Your task to perform on an android device: Go to CNN.com Image 0: 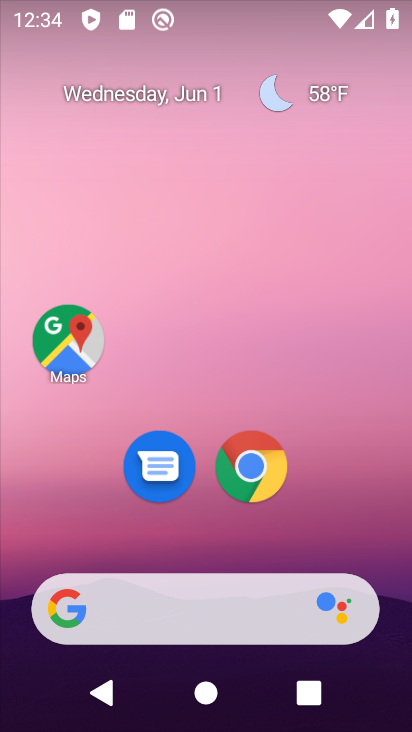
Step 0: click (250, 475)
Your task to perform on an android device: Go to CNN.com Image 1: 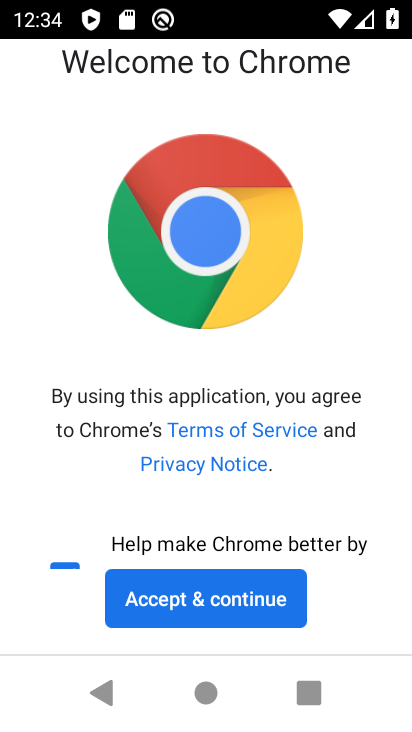
Step 1: click (251, 610)
Your task to perform on an android device: Go to CNN.com Image 2: 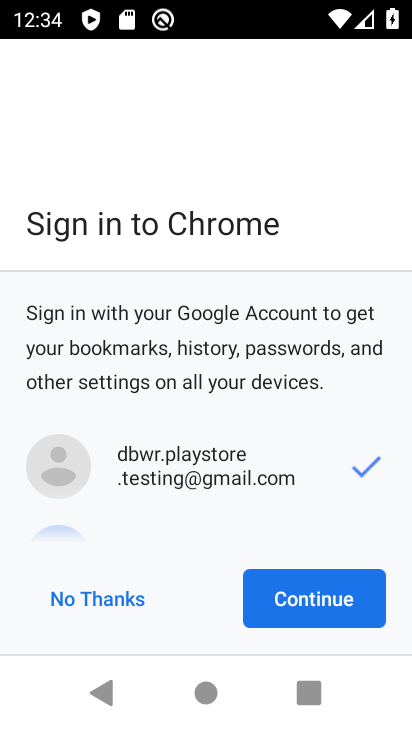
Step 2: click (297, 609)
Your task to perform on an android device: Go to CNN.com Image 3: 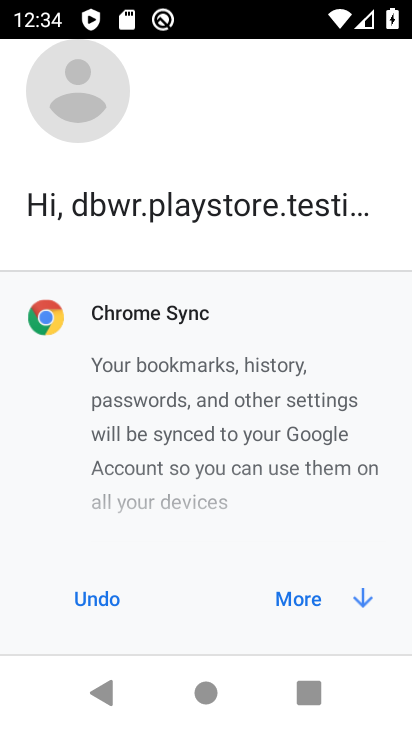
Step 3: click (299, 606)
Your task to perform on an android device: Go to CNN.com Image 4: 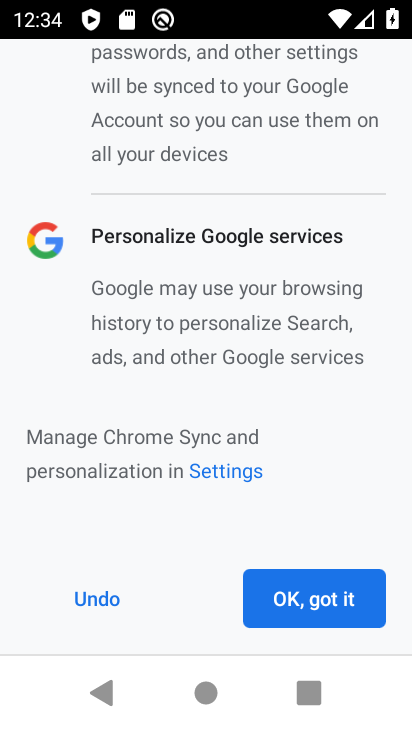
Step 4: click (299, 606)
Your task to perform on an android device: Go to CNN.com Image 5: 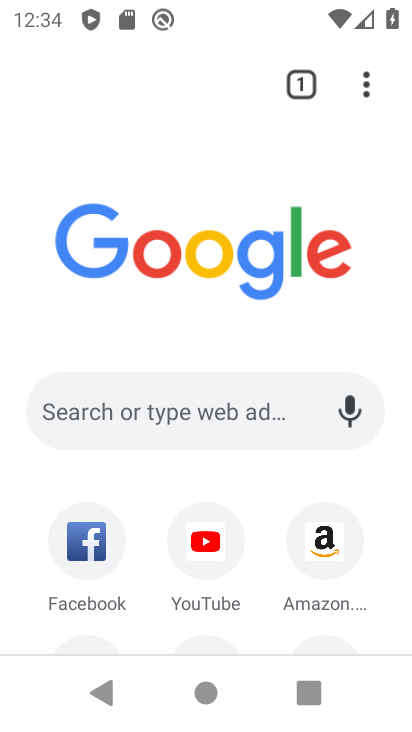
Step 5: drag from (150, 587) to (193, 160)
Your task to perform on an android device: Go to CNN.com Image 6: 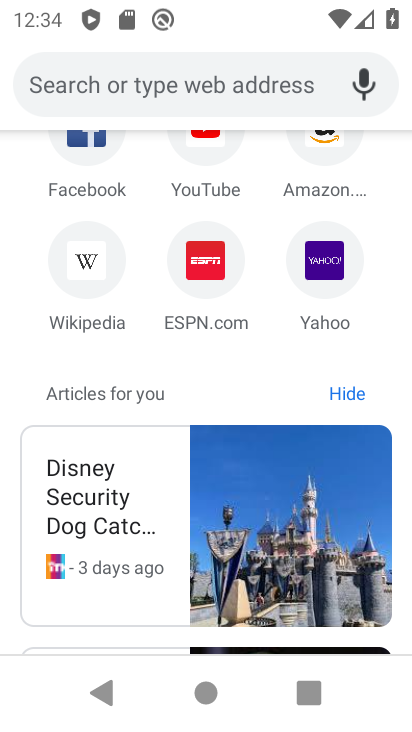
Step 6: click (241, 89)
Your task to perform on an android device: Go to CNN.com Image 7: 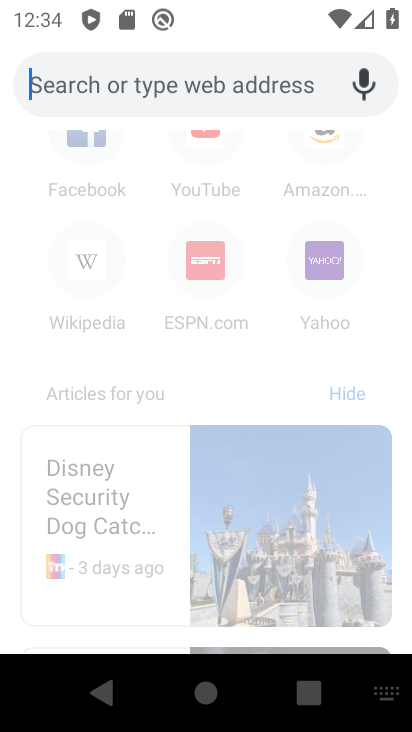
Step 7: type "CNN.com"
Your task to perform on an android device: Go to CNN.com Image 8: 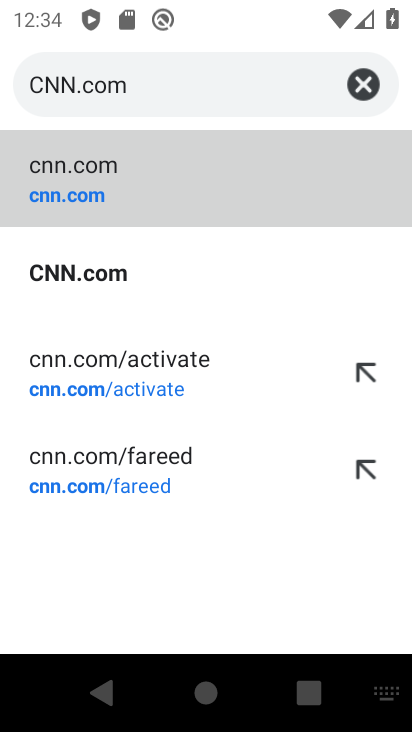
Step 8: click (179, 182)
Your task to perform on an android device: Go to CNN.com Image 9: 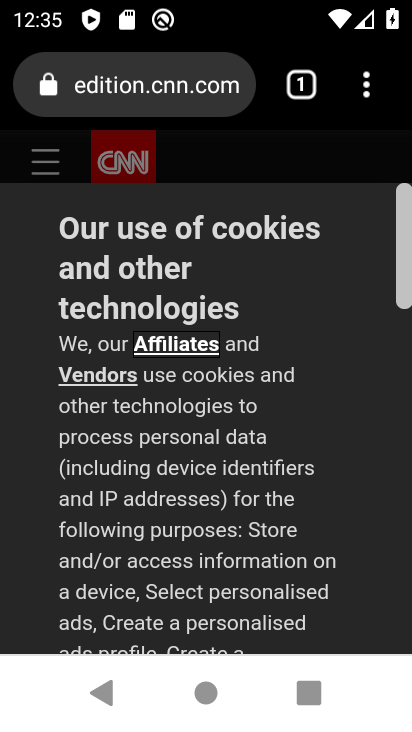
Step 9: task complete